Your task to perform on an android device: set the stopwatch Image 0: 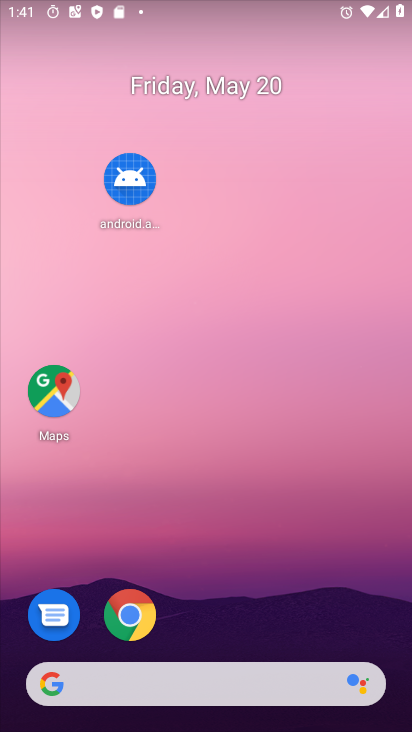
Step 0: drag from (380, 535) to (324, 17)
Your task to perform on an android device: set the stopwatch Image 1: 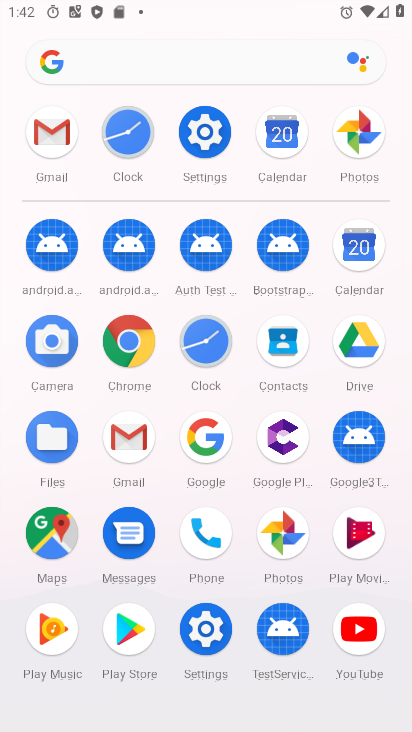
Step 1: click (200, 342)
Your task to perform on an android device: set the stopwatch Image 2: 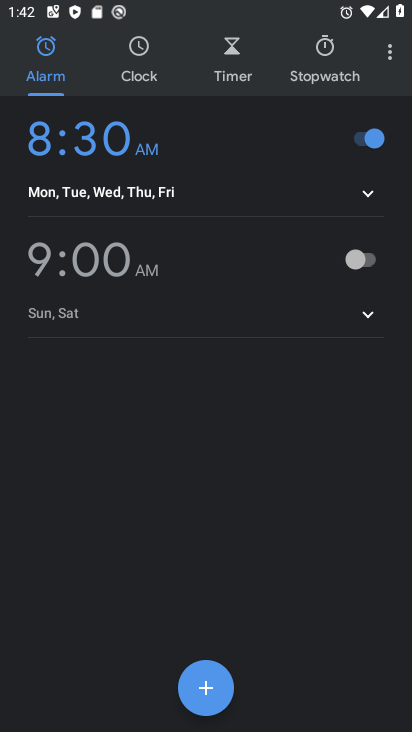
Step 2: click (336, 73)
Your task to perform on an android device: set the stopwatch Image 3: 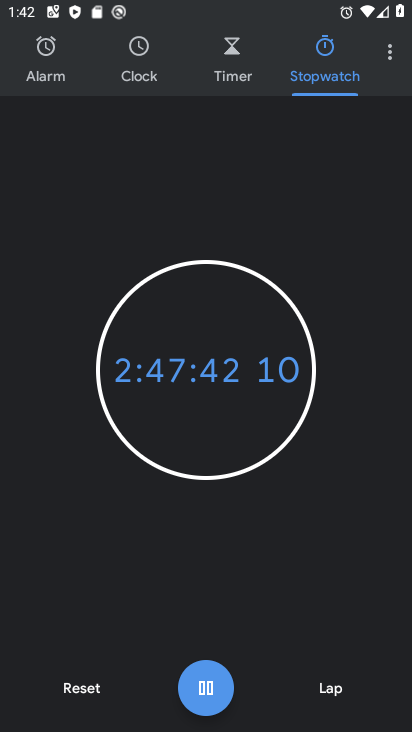
Step 3: click (226, 369)
Your task to perform on an android device: set the stopwatch Image 4: 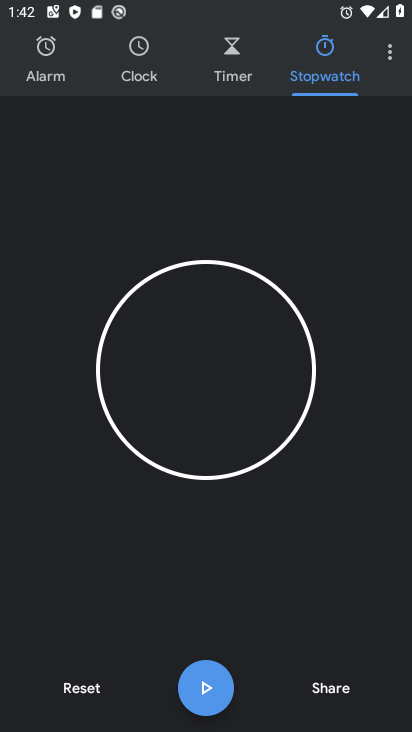
Step 4: task complete